Your task to perform on an android device: Go to notification settings Image 0: 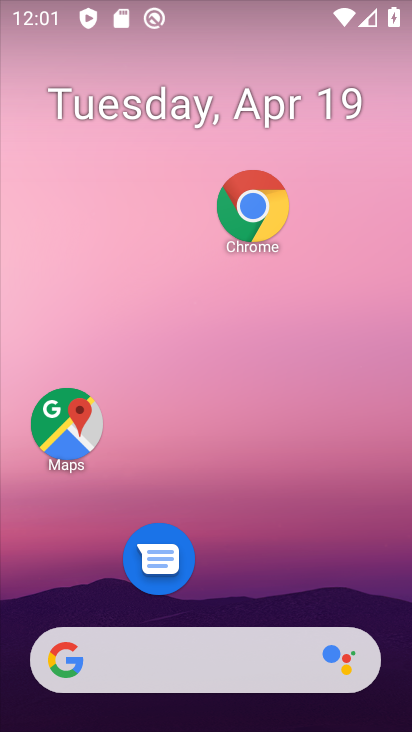
Step 0: drag from (218, 500) to (188, 32)
Your task to perform on an android device: Go to notification settings Image 1: 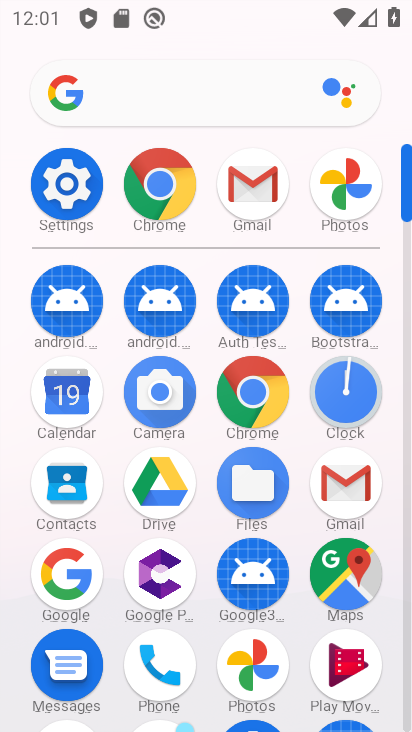
Step 1: drag from (199, 569) to (216, 112)
Your task to perform on an android device: Go to notification settings Image 2: 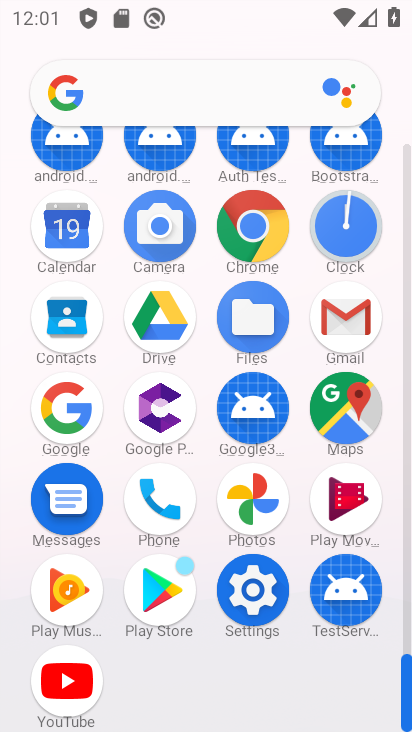
Step 2: click (247, 591)
Your task to perform on an android device: Go to notification settings Image 3: 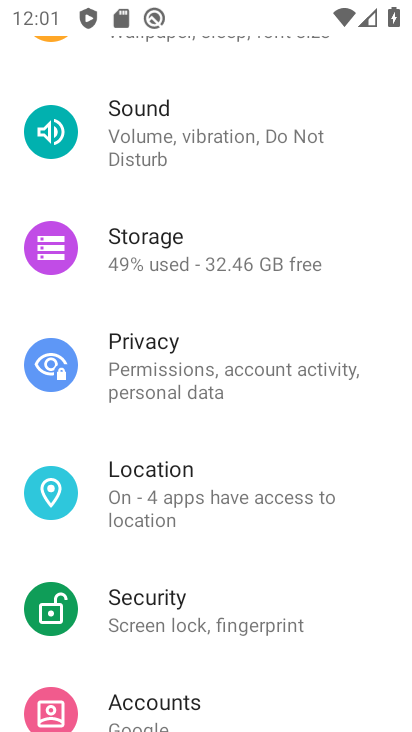
Step 3: drag from (247, 698) to (268, 346)
Your task to perform on an android device: Go to notification settings Image 4: 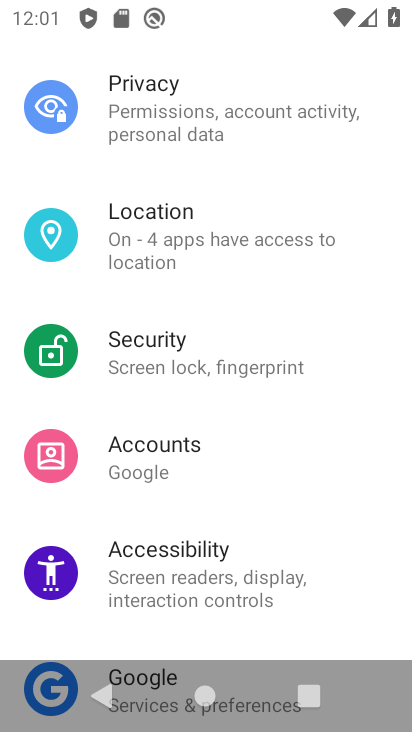
Step 4: drag from (262, 287) to (243, 690)
Your task to perform on an android device: Go to notification settings Image 5: 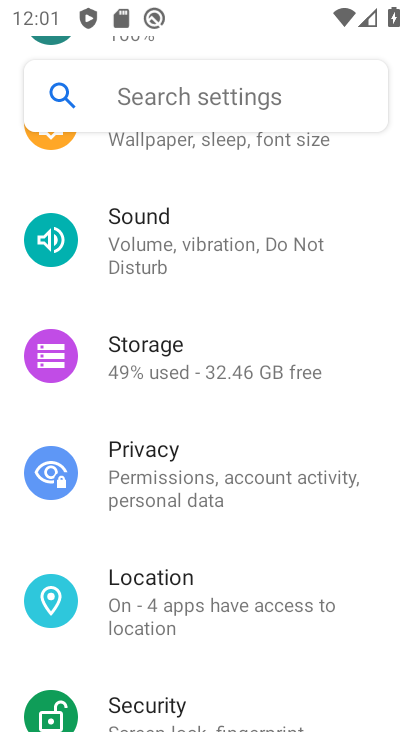
Step 5: drag from (347, 355) to (366, 713)
Your task to perform on an android device: Go to notification settings Image 6: 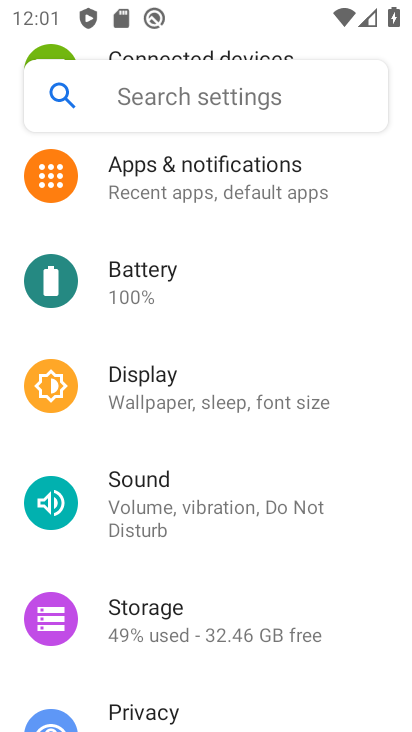
Step 6: click (271, 177)
Your task to perform on an android device: Go to notification settings Image 7: 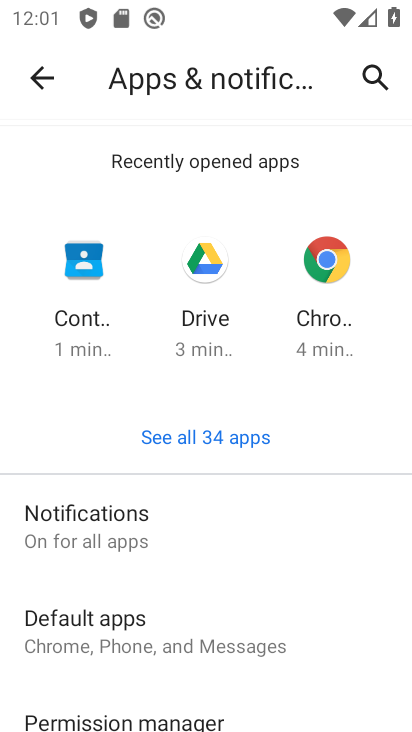
Step 7: drag from (298, 675) to (318, 286)
Your task to perform on an android device: Go to notification settings Image 8: 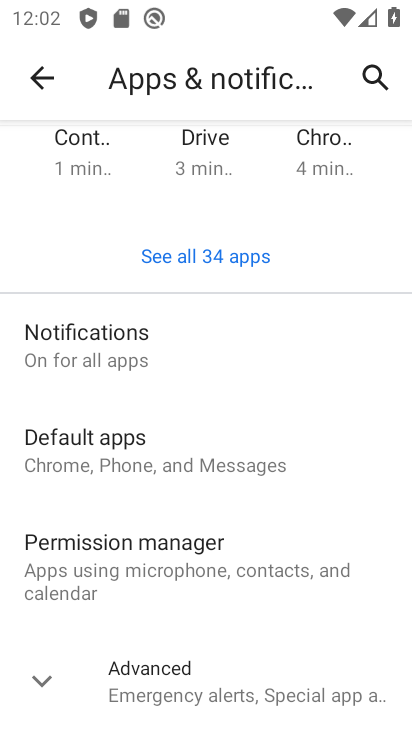
Step 8: click (267, 683)
Your task to perform on an android device: Go to notification settings Image 9: 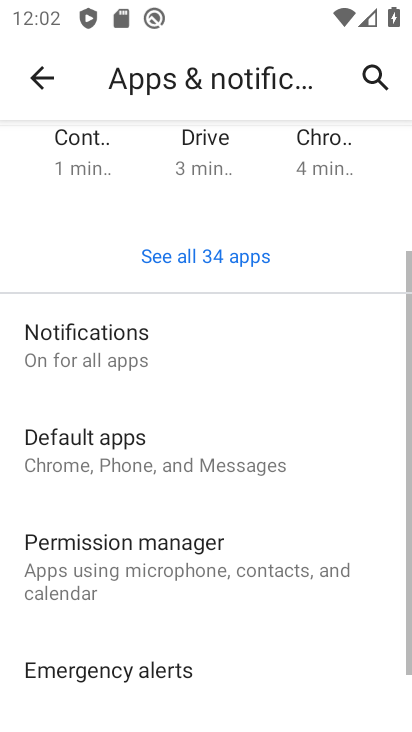
Step 9: task complete